Your task to perform on an android device: open app "Microsoft Authenticator" Image 0: 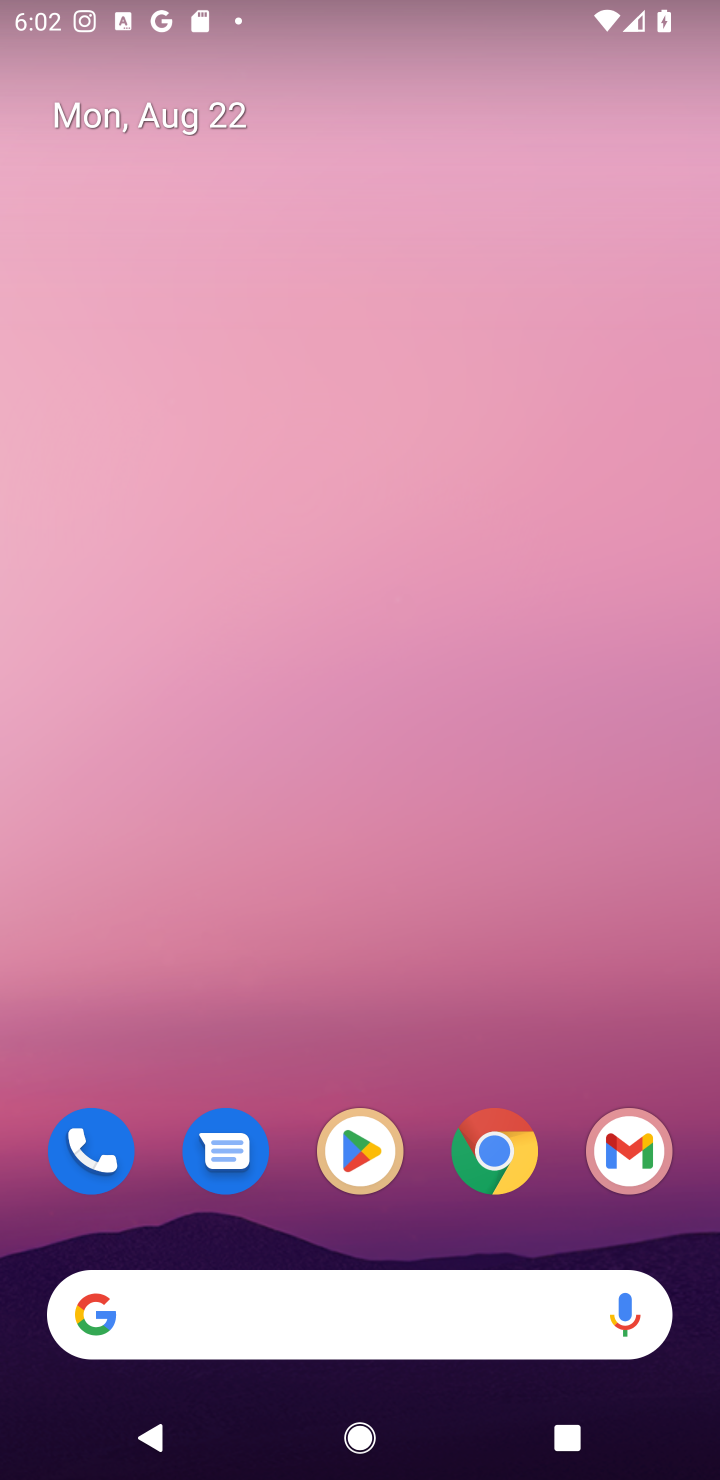
Step 0: press home button
Your task to perform on an android device: open app "Microsoft Authenticator" Image 1: 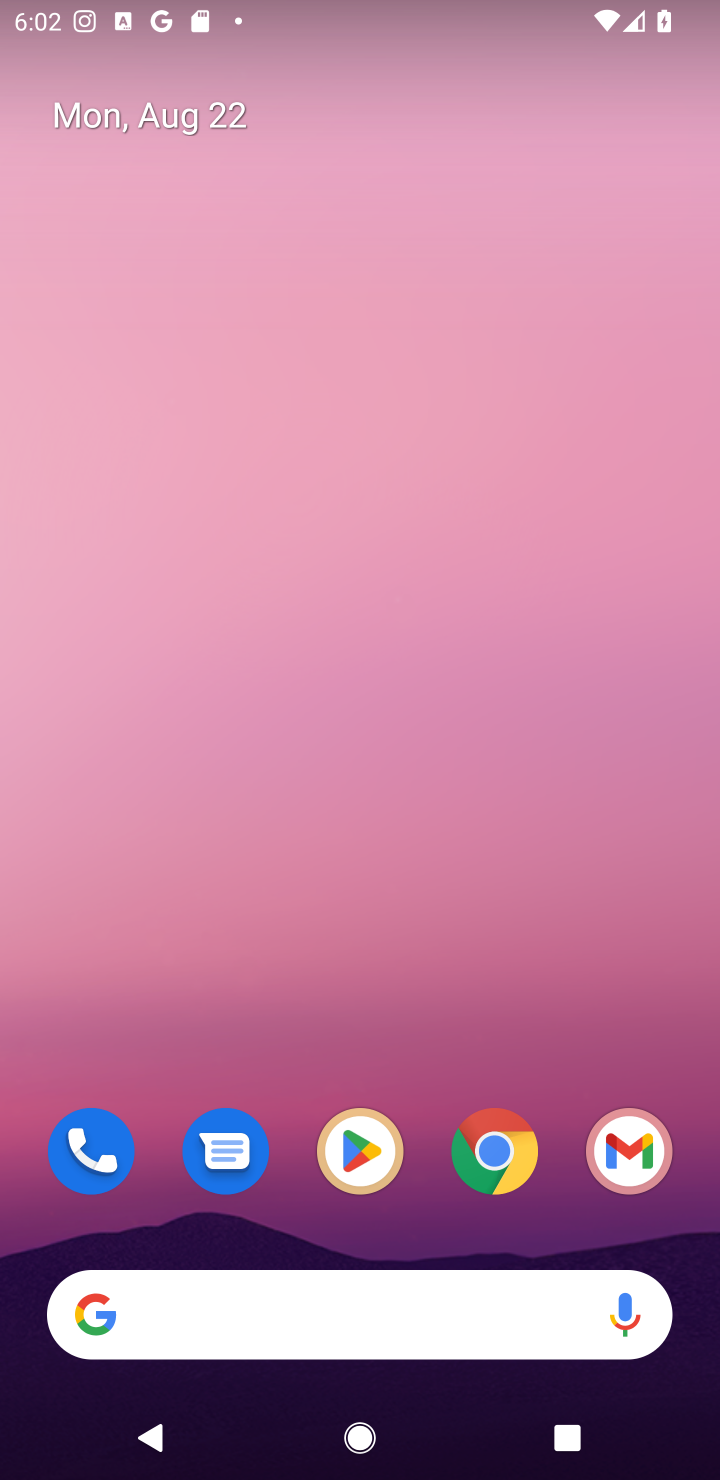
Step 1: click (342, 1148)
Your task to perform on an android device: open app "Microsoft Authenticator" Image 2: 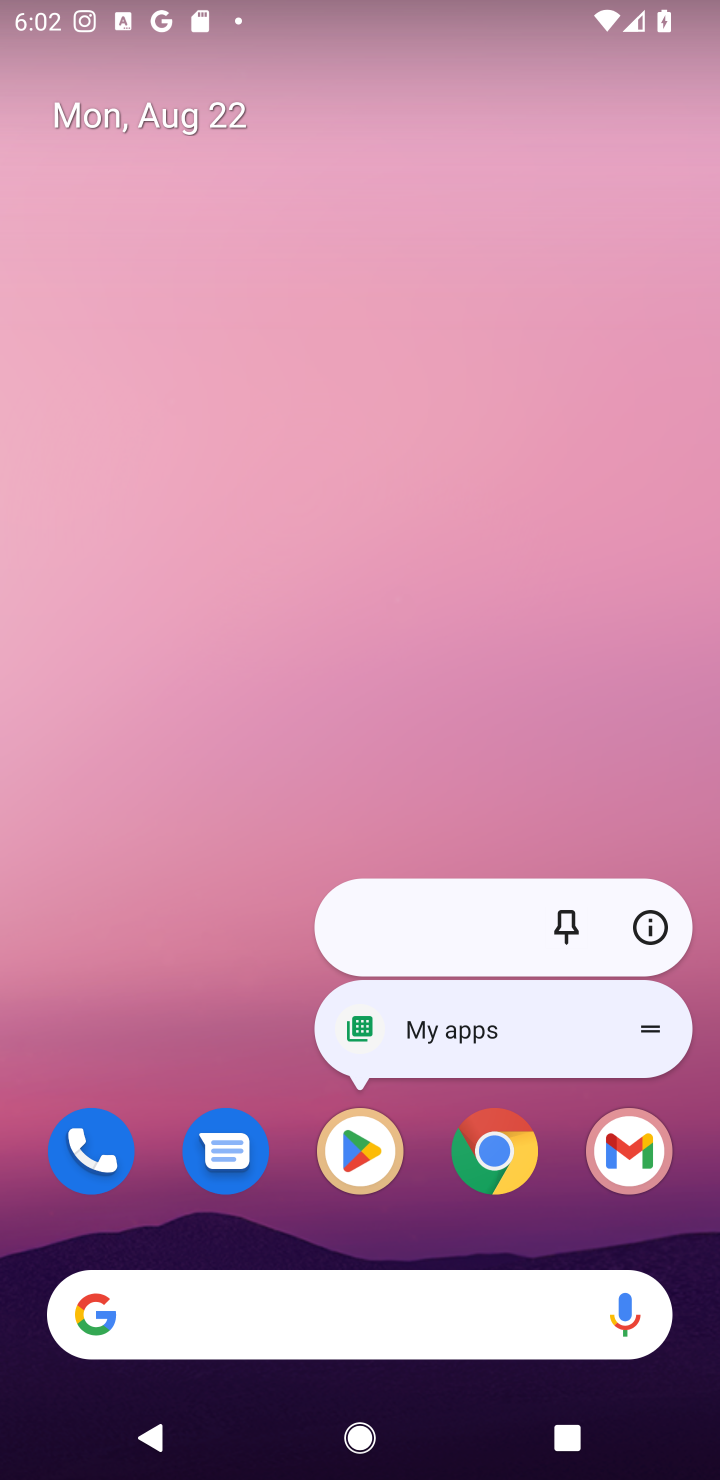
Step 2: click (342, 1158)
Your task to perform on an android device: open app "Microsoft Authenticator" Image 3: 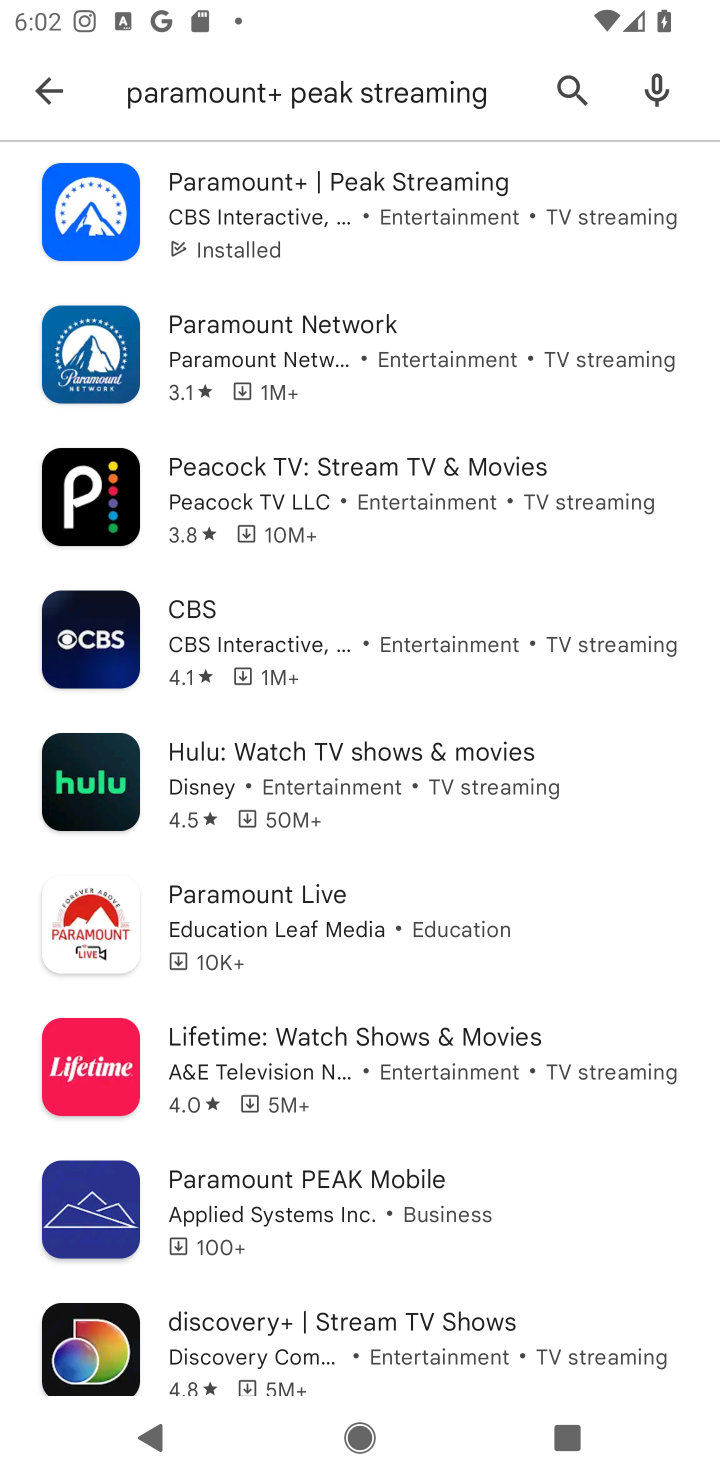
Step 3: click (566, 82)
Your task to perform on an android device: open app "Microsoft Authenticator" Image 4: 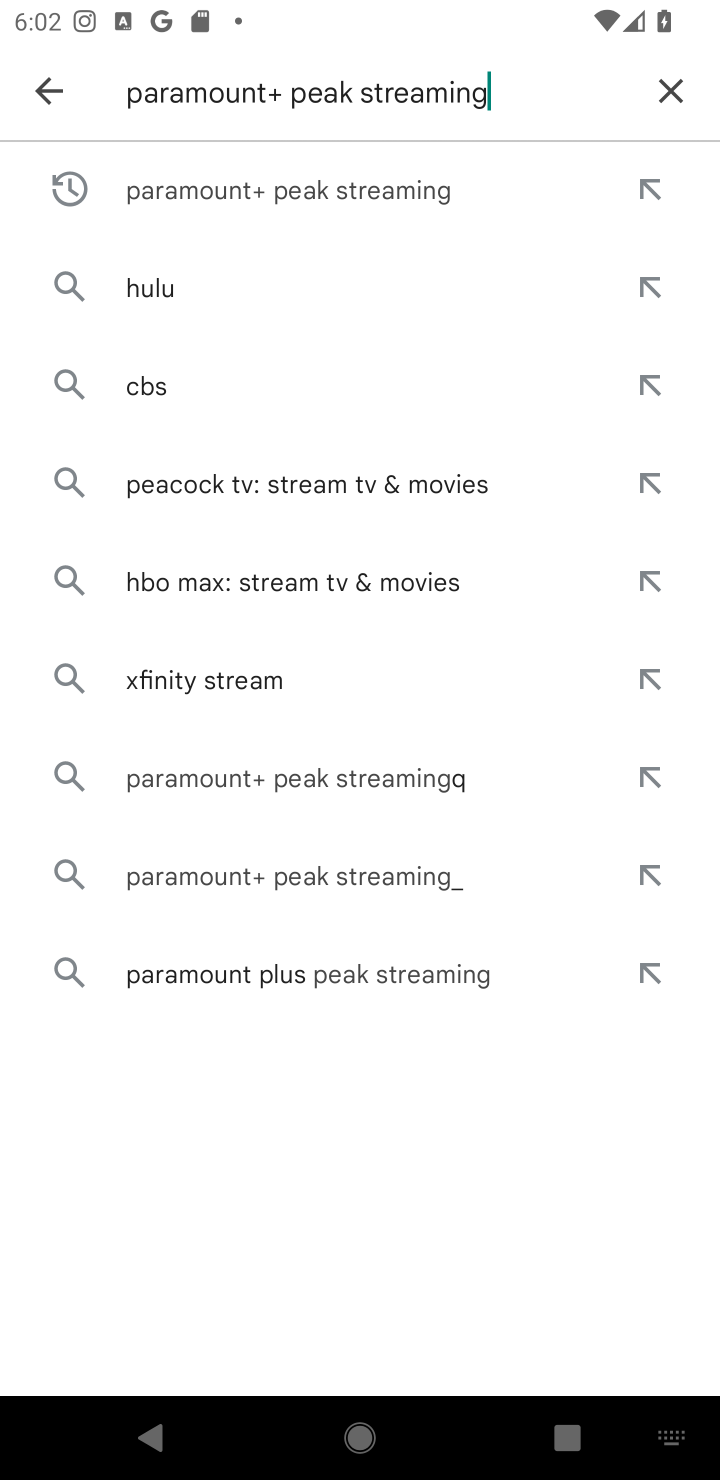
Step 4: click (674, 76)
Your task to perform on an android device: open app "Microsoft Authenticator" Image 5: 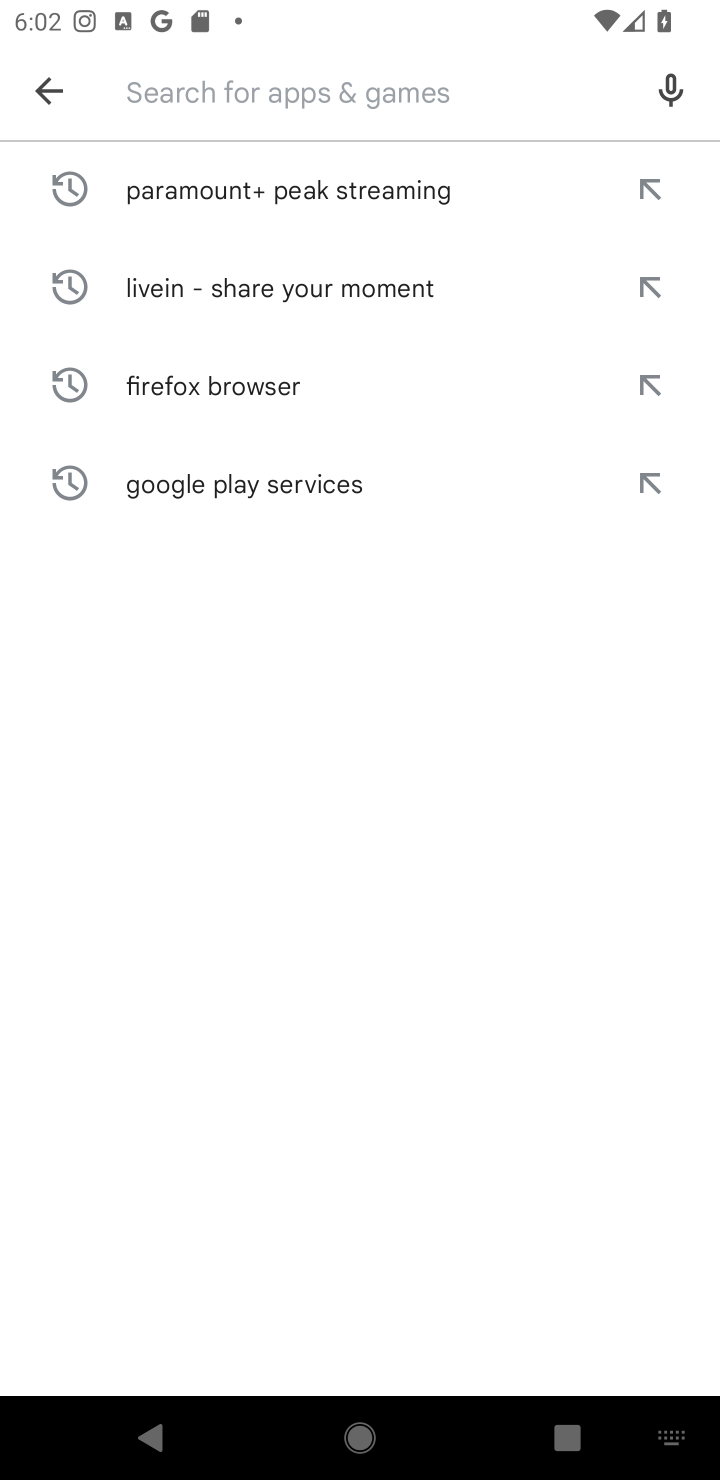
Step 5: type "Microsoft Authenticator"
Your task to perform on an android device: open app "Microsoft Authenticator" Image 6: 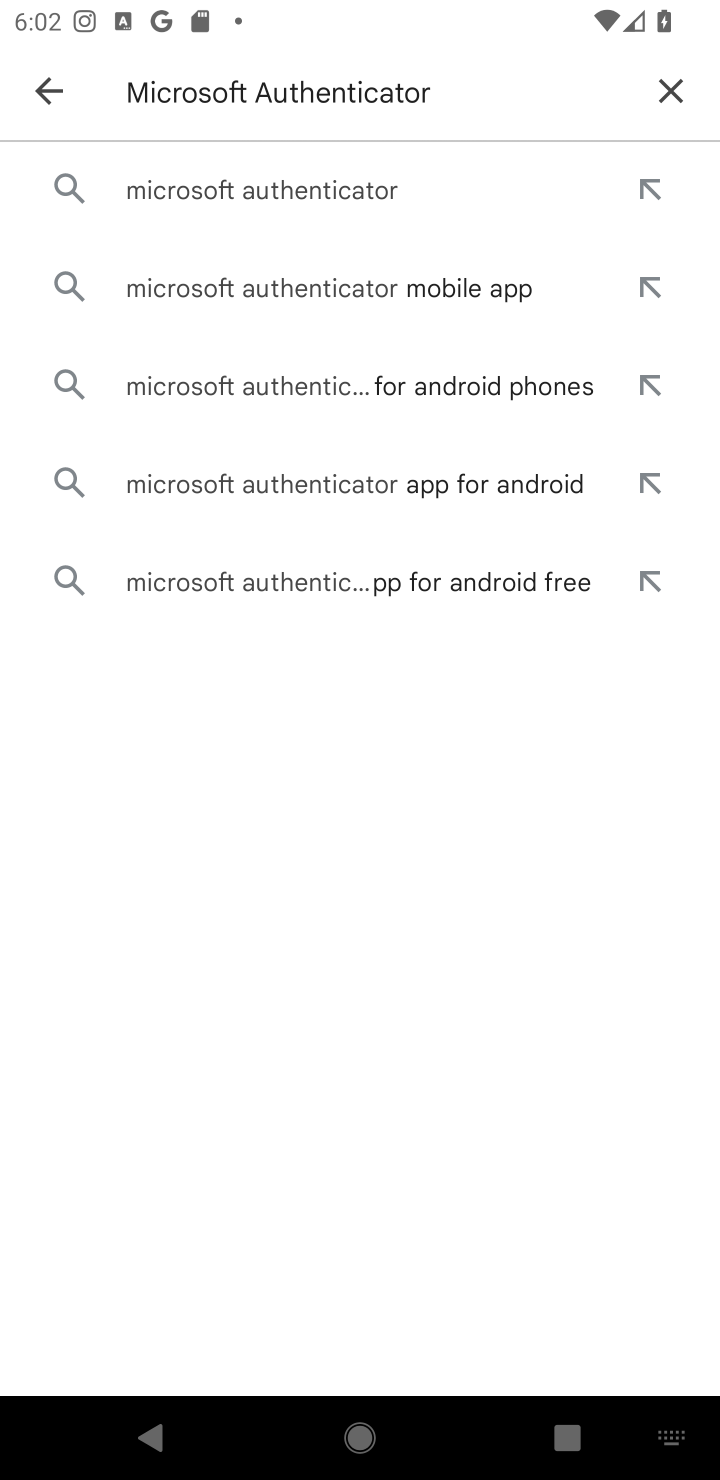
Step 6: click (216, 186)
Your task to perform on an android device: open app "Microsoft Authenticator" Image 7: 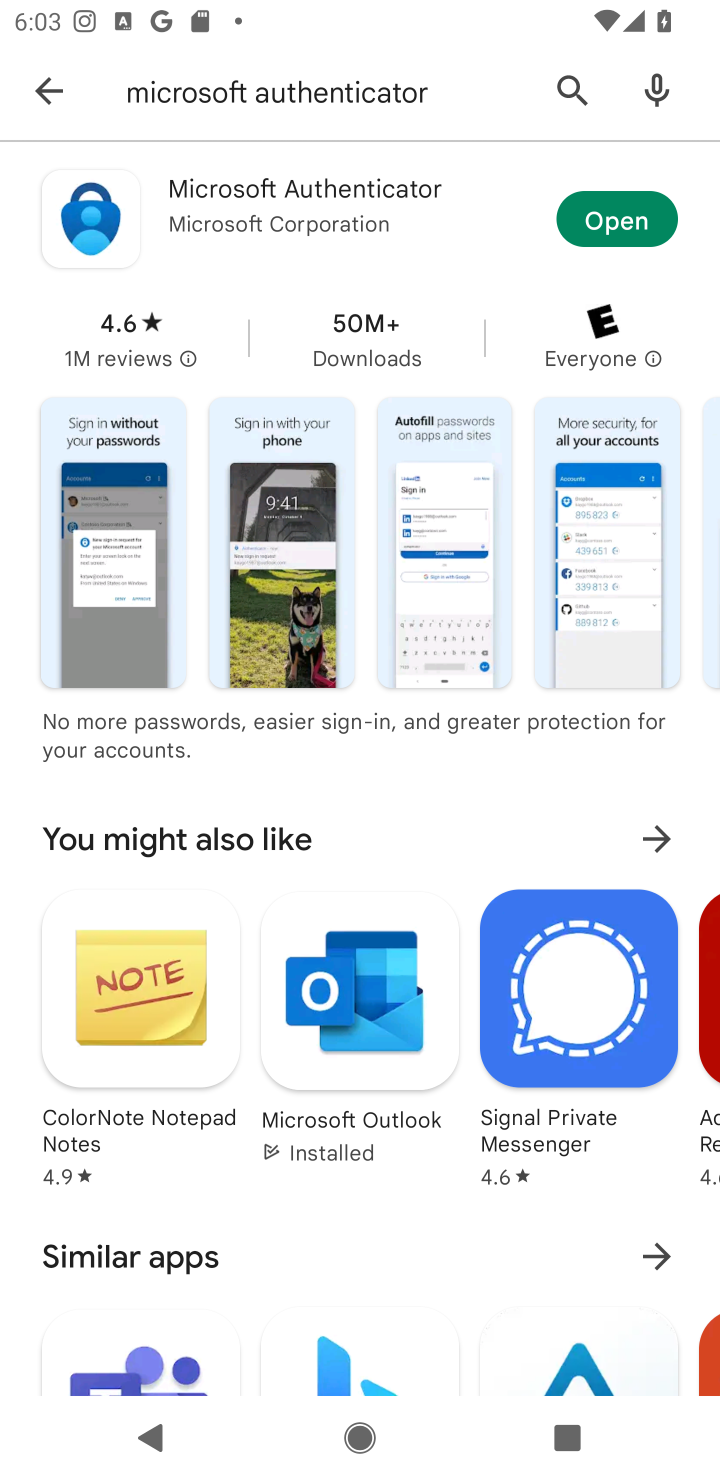
Step 7: click (623, 214)
Your task to perform on an android device: open app "Microsoft Authenticator" Image 8: 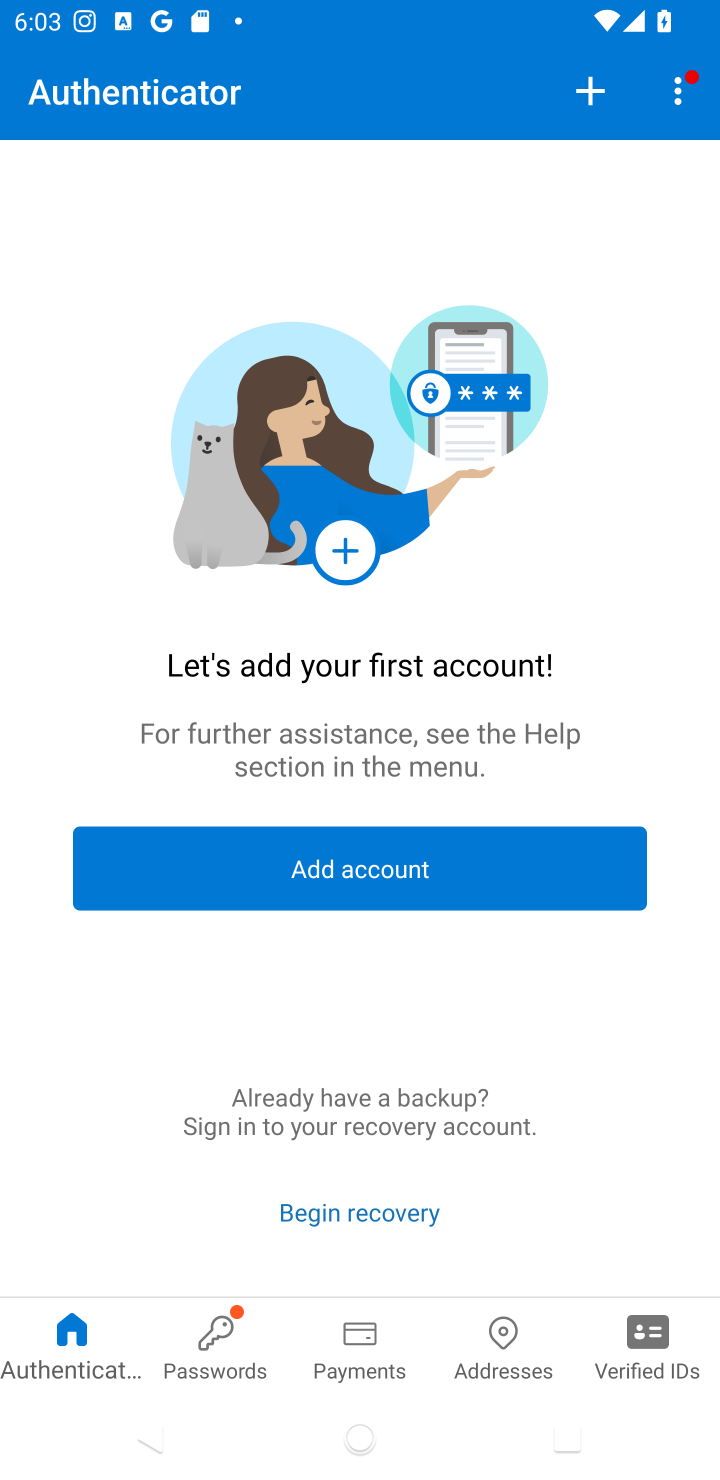
Step 8: task complete